Your task to perform on an android device: Go to location settings Image 0: 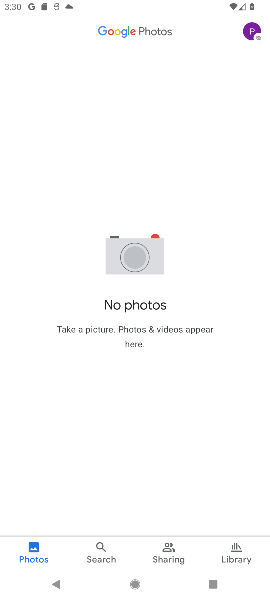
Step 0: press back button
Your task to perform on an android device: Go to location settings Image 1: 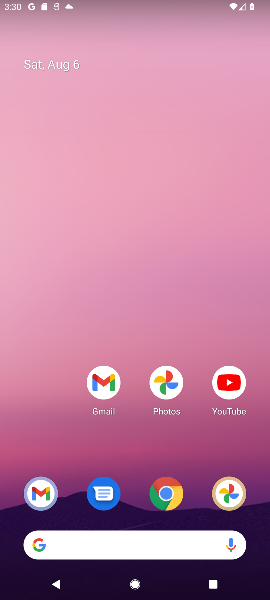
Step 1: drag from (186, 544) to (160, 116)
Your task to perform on an android device: Go to location settings Image 2: 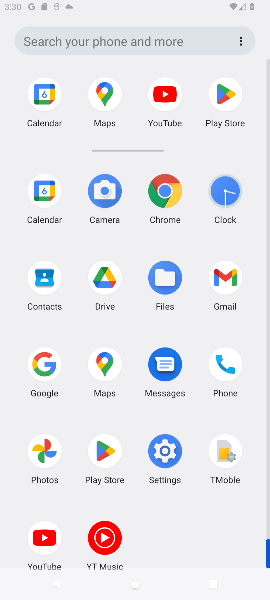
Step 2: drag from (164, 505) to (130, 161)
Your task to perform on an android device: Go to location settings Image 3: 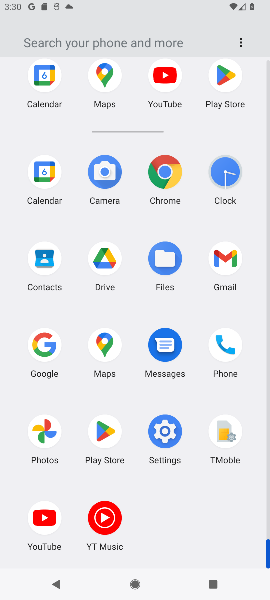
Step 3: click (164, 430)
Your task to perform on an android device: Go to location settings Image 4: 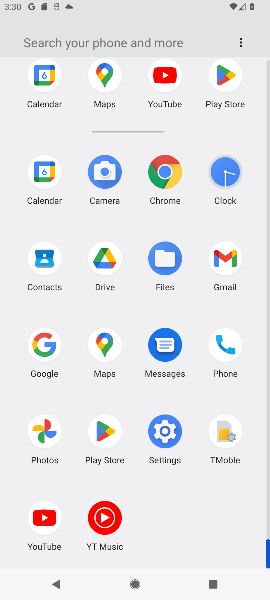
Step 4: click (164, 431)
Your task to perform on an android device: Go to location settings Image 5: 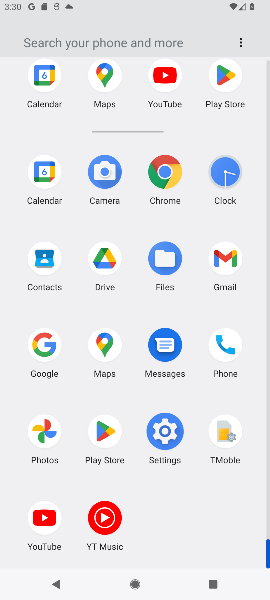
Step 5: click (164, 431)
Your task to perform on an android device: Go to location settings Image 6: 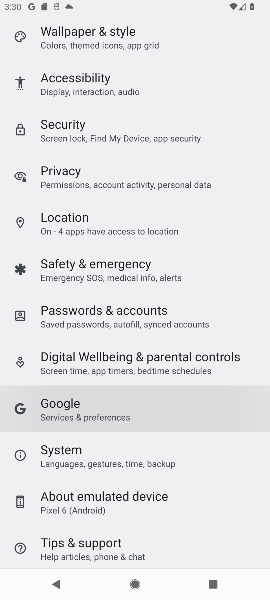
Step 6: click (164, 432)
Your task to perform on an android device: Go to location settings Image 7: 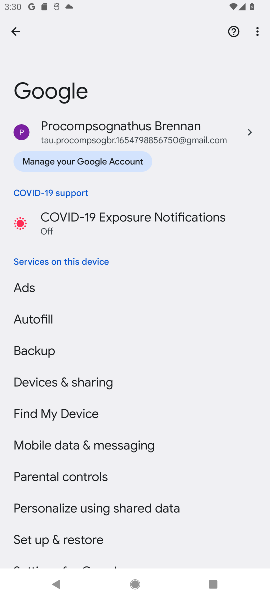
Step 7: click (171, 314)
Your task to perform on an android device: Go to location settings Image 8: 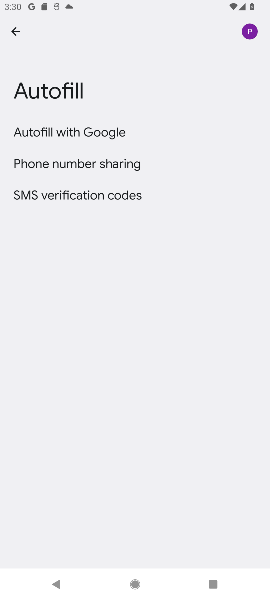
Step 8: click (13, 33)
Your task to perform on an android device: Go to location settings Image 9: 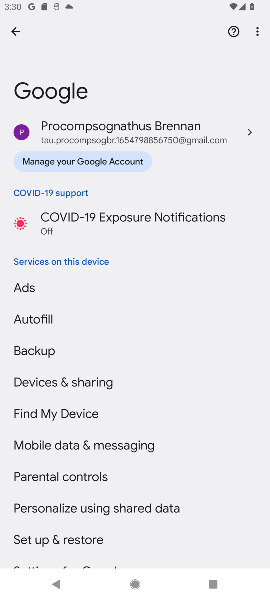
Step 9: click (16, 30)
Your task to perform on an android device: Go to location settings Image 10: 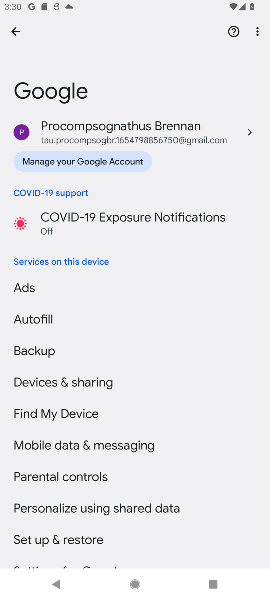
Step 10: click (14, 38)
Your task to perform on an android device: Go to location settings Image 11: 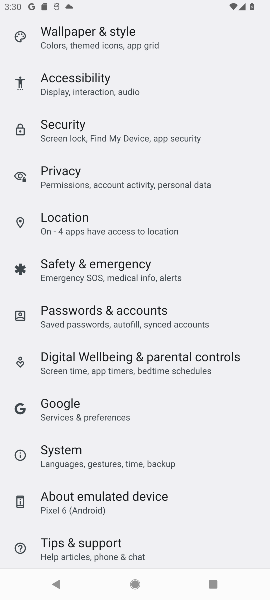
Step 11: click (71, 223)
Your task to perform on an android device: Go to location settings Image 12: 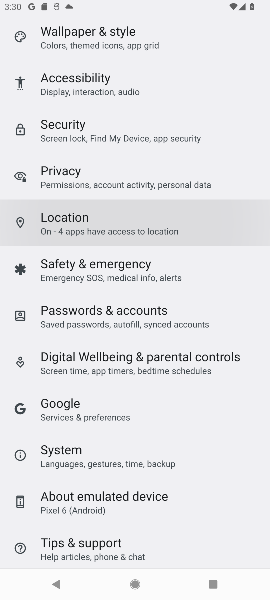
Step 12: click (71, 222)
Your task to perform on an android device: Go to location settings Image 13: 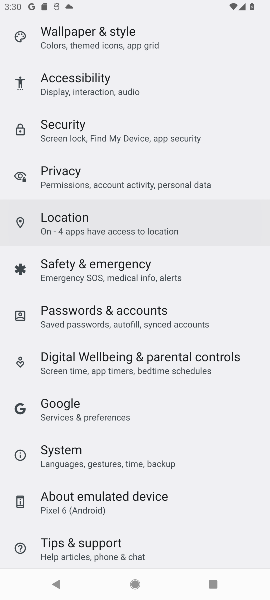
Step 13: click (76, 226)
Your task to perform on an android device: Go to location settings Image 14: 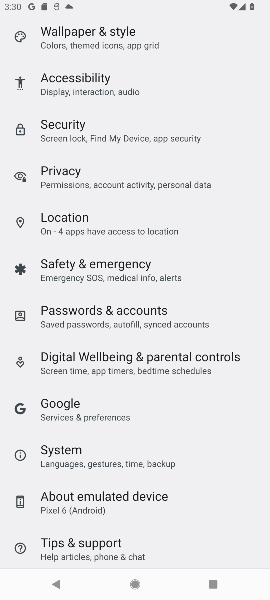
Step 14: click (78, 226)
Your task to perform on an android device: Go to location settings Image 15: 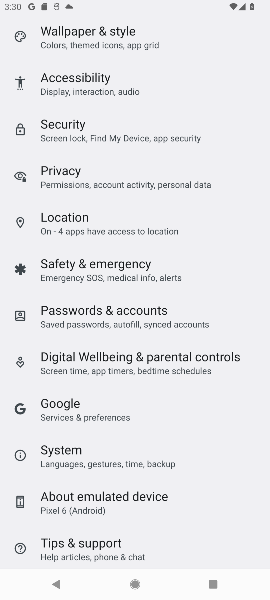
Step 15: click (78, 226)
Your task to perform on an android device: Go to location settings Image 16: 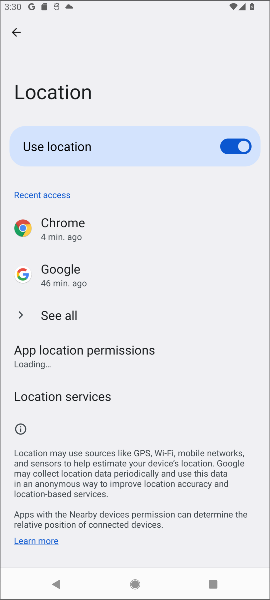
Step 16: click (78, 226)
Your task to perform on an android device: Go to location settings Image 17: 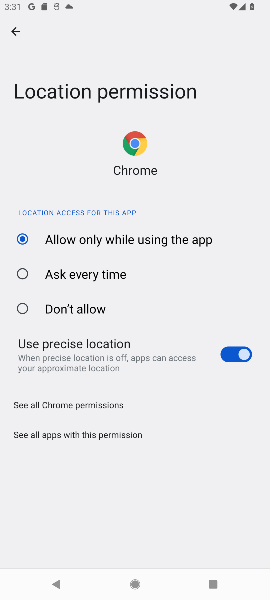
Step 17: task complete